Your task to perform on an android device: change text size in settings app Image 0: 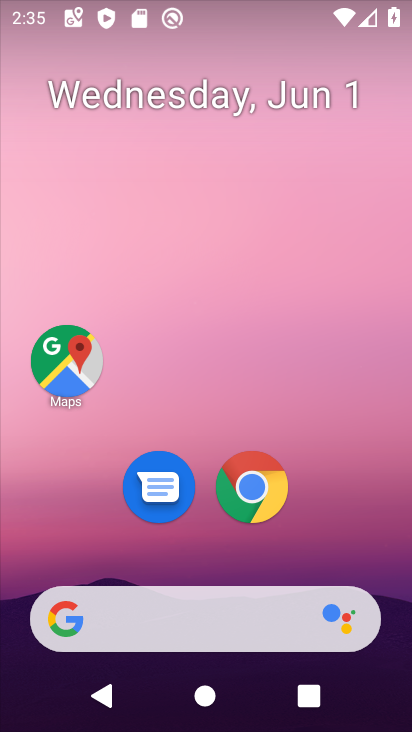
Step 0: drag from (368, 536) to (373, 165)
Your task to perform on an android device: change text size in settings app Image 1: 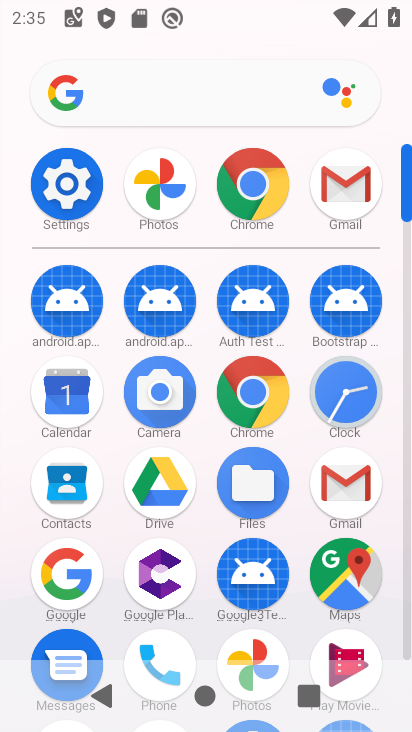
Step 1: click (76, 193)
Your task to perform on an android device: change text size in settings app Image 2: 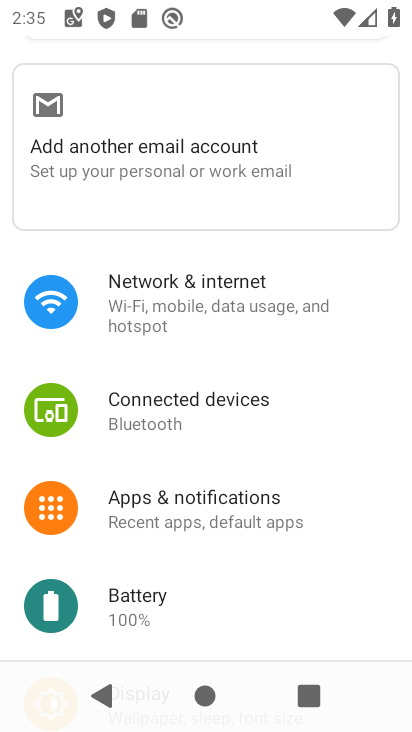
Step 2: drag from (351, 483) to (351, 391)
Your task to perform on an android device: change text size in settings app Image 3: 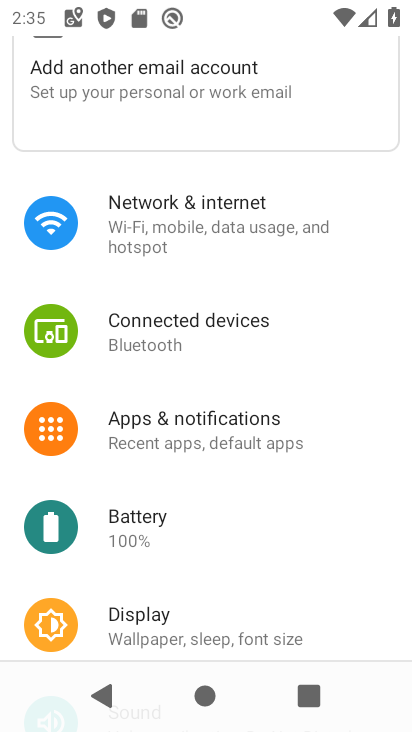
Step 3: drag from (344, 537) to (347, 406)
Your task to perform on an android device: change text size in settings app Image 4: 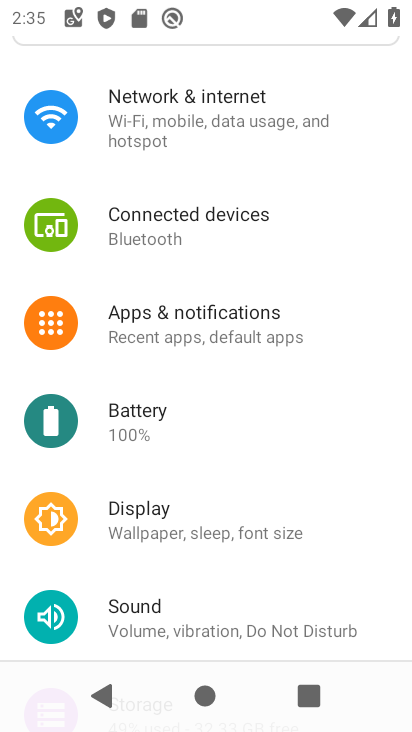
Step 4: drag from (325, 466) to (348, 294)
Your task to perform on an android device: change text size in settings app Image 5: 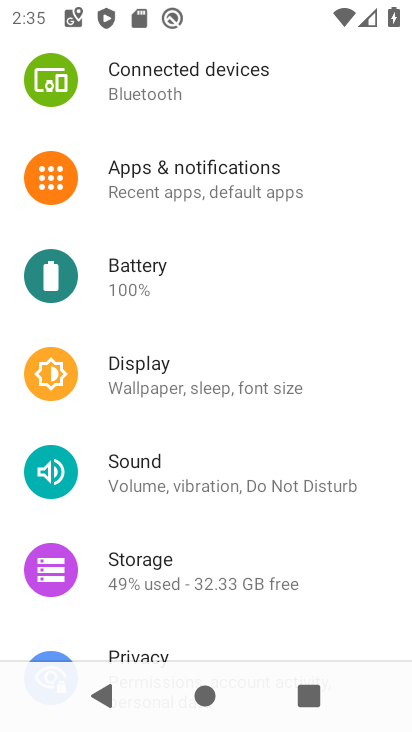
Step 5: drag from (352, 525) to (356, 377)
Your task to perform on an android device: change text size in settings app Image 6: 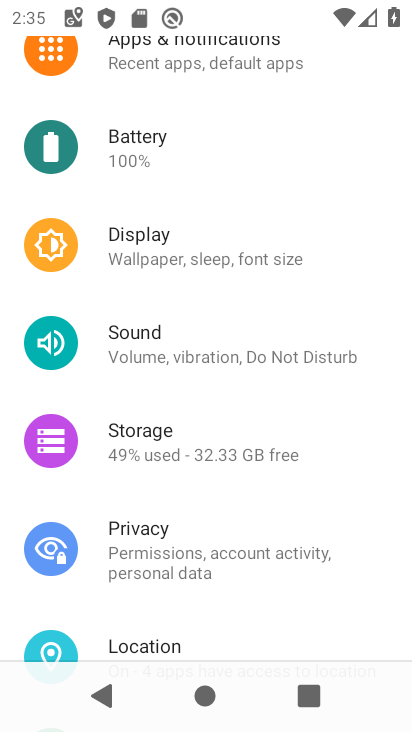
Step 6: drag from (344, 521) to (347, 368)
Your task to perform on an android device: change text size in settings app Image 7: 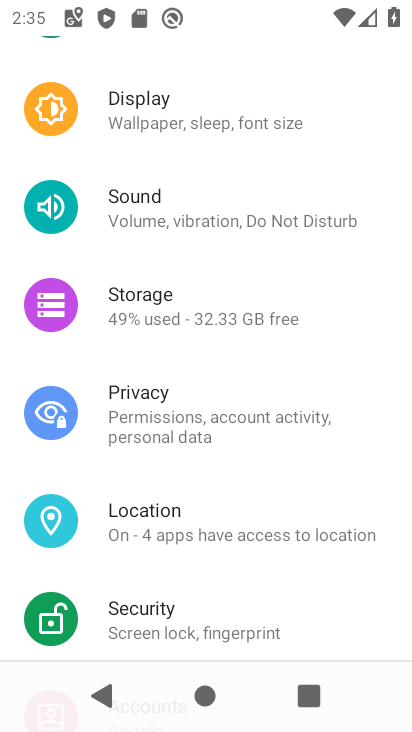
Step 7: drag from (340, 578) to (335, 381)
Your task to perform on an android device: change text size in settings app Image 8: 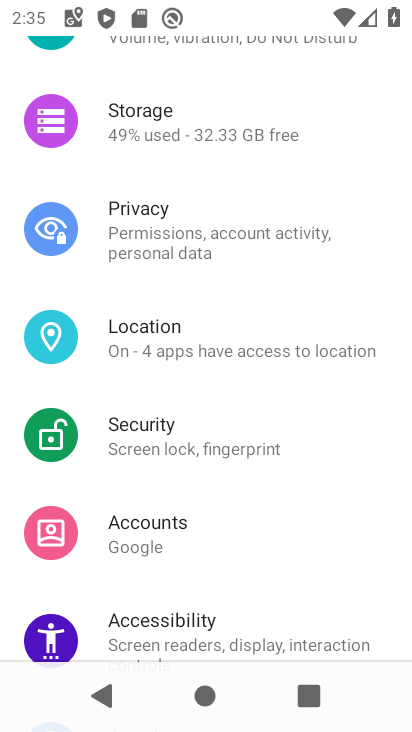
Step 8: drag from (331, 533) to (335, 381)
Your task to perform on an android device: change text size in settings app Image 9: 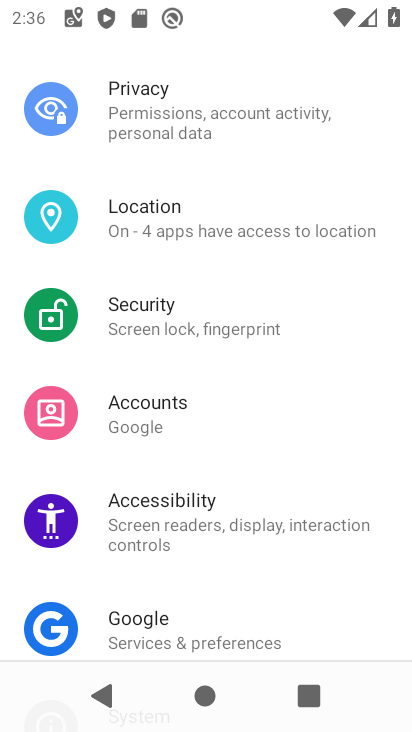
Step 9: drag from (335, 573) to (331, 383)
Your task to perform on an android device: change text size in settings app Image 10: 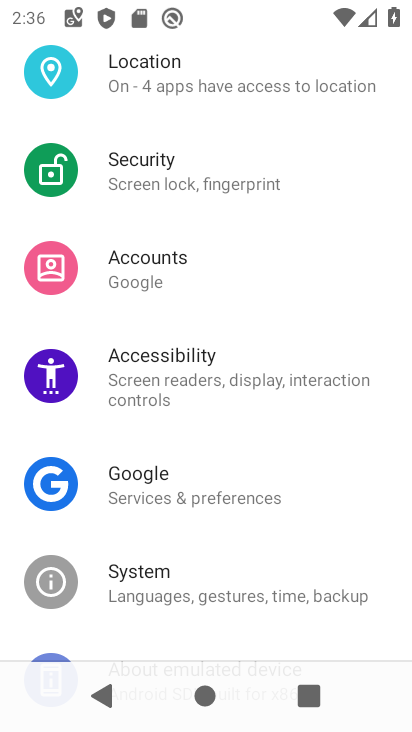
Step 10: drag from (329, 519) to (326, 372)
Your task to perform on an android device: change text size in settings app Image 11: 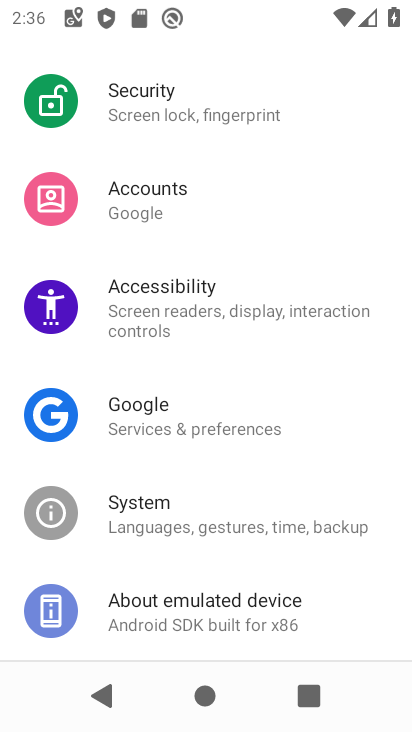
Step 11: drag from (328, 342) to (330, 478)
Your task to perform on an android device: change text size in settings app Image 12: 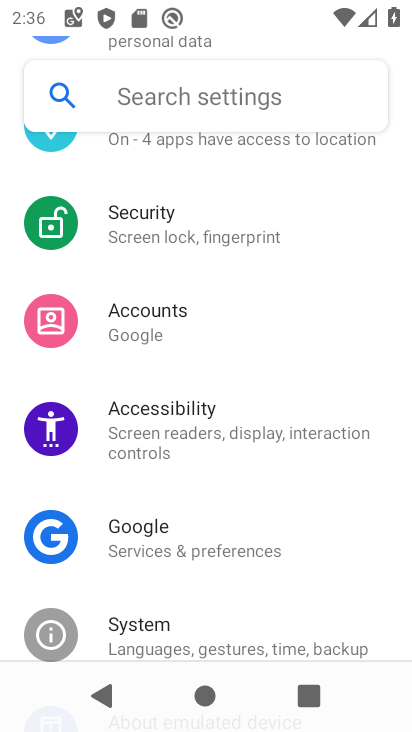
Step 12: drag from (338, 293) to (337, 412)
Your task to perform on an android device: change text size in settings app Image 13: 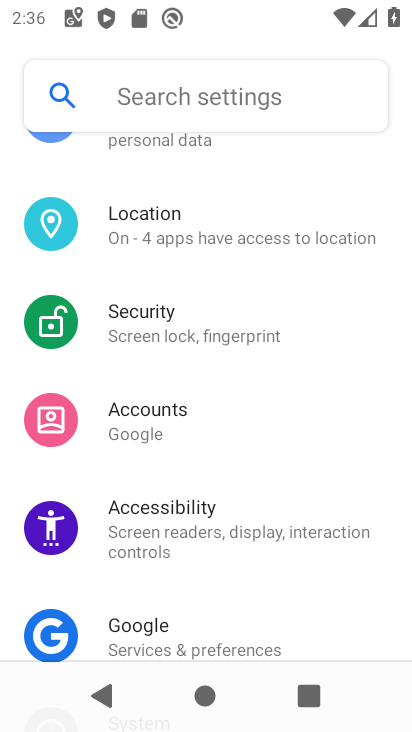
Step 13: drag from (341, 266) to (339, 402)
Your task to perform on an android device: change text size in settings app Image 14: 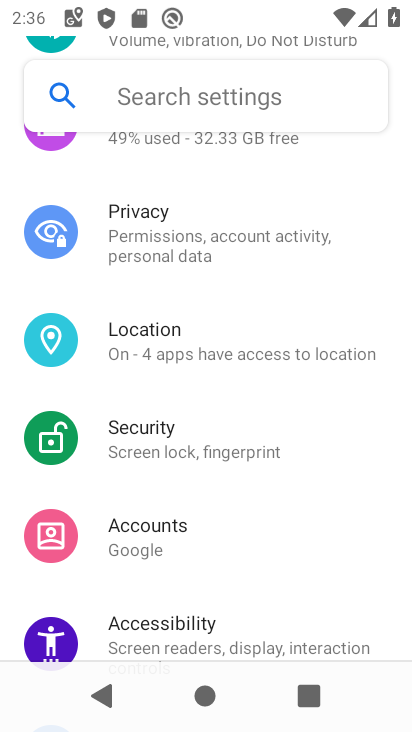
Step 14: drag from (342, 293) to (347, 431)
Your task to perform on an android device: change text size in settings app Image 15: 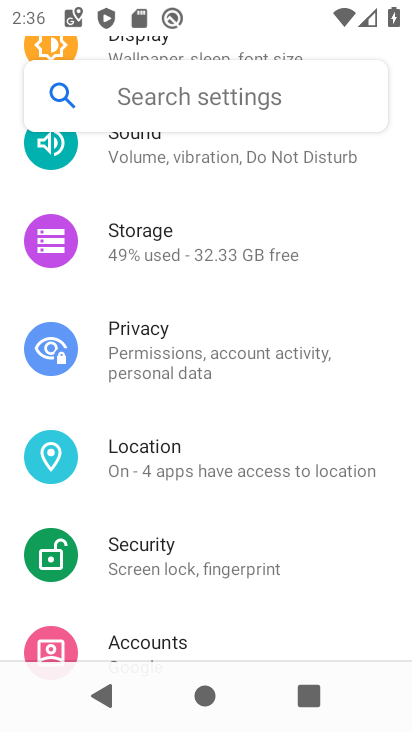
Step 15: drag from (344, 294) to (337, 443)
Your task to perform on an android device: change text size in settings app Image 16: 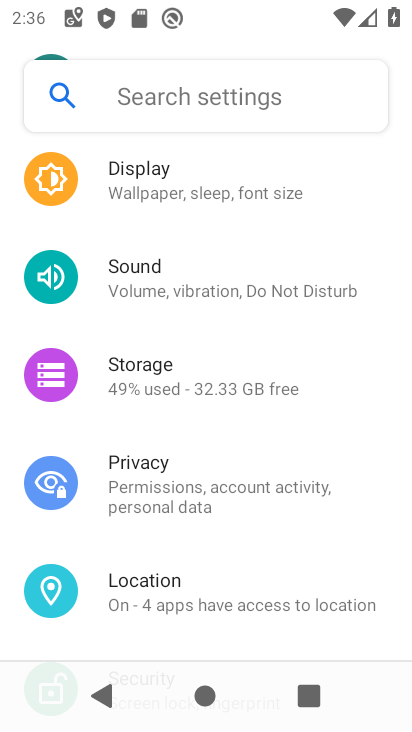
Step 16: drag from (338, 245) to (341, 401)
Your task to perform on an android device: change text size in settings app Image 17: 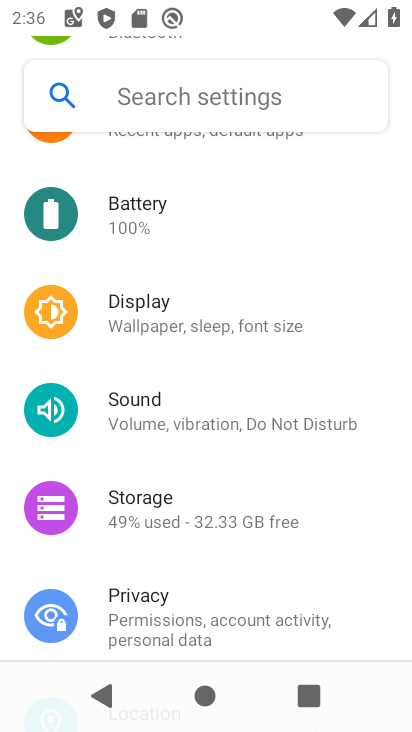
Step 17: click (287, 324)
Your task to perform on an android device: change text size in settings app Image 18: 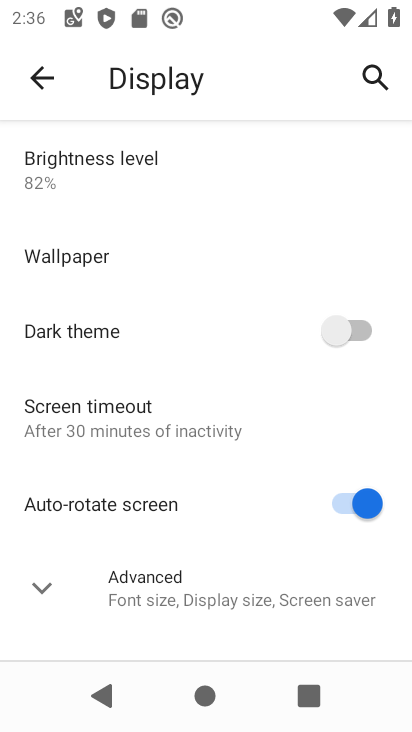
Step 18: click (225, 589)
Your task to perform on an android device: change text size in settings app Image 19: 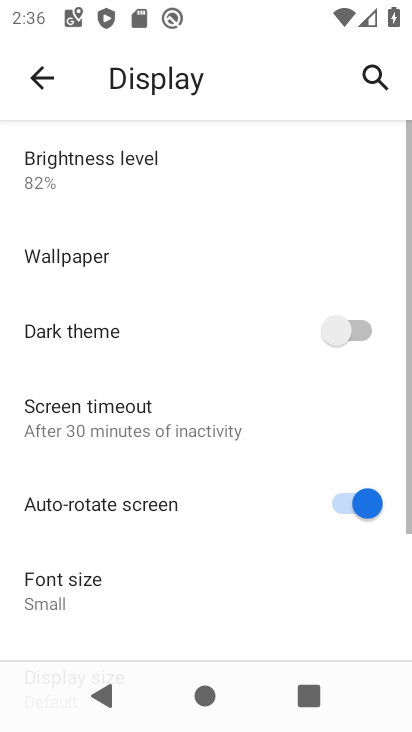
Step 19: drag from (252, 506) to (260, 327)
Your task to perform on an android device: change text size in settings app Image 20: 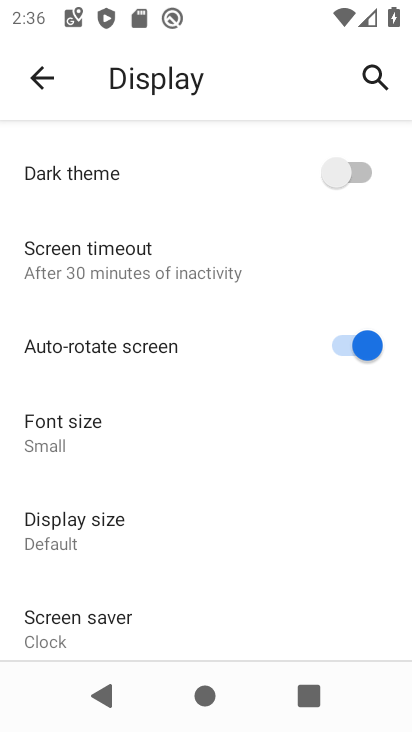
Step 20: click (118, 456)
Your task to perform on an android device: change text size in settings app Image 21: 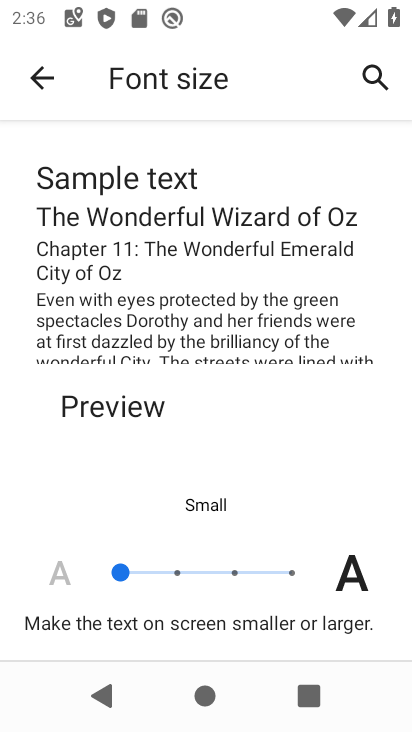
Step 21: click (172, 576)
Your task to perform on an android device: change text size in settings app Image 22: 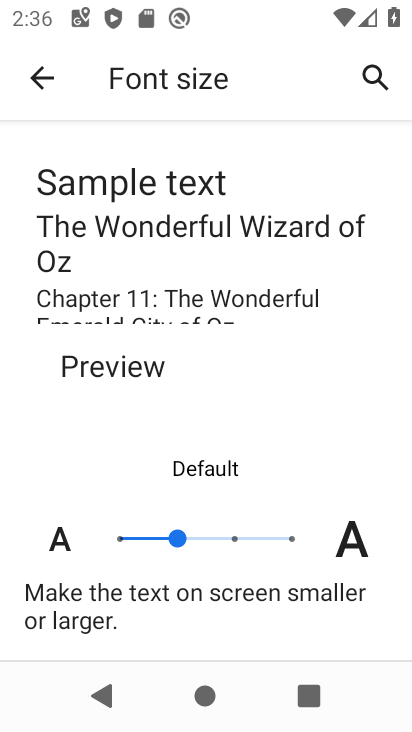
Step 22: task complete